Your task to perform on an android device: Open Chrome and go to the settings page Image 0: 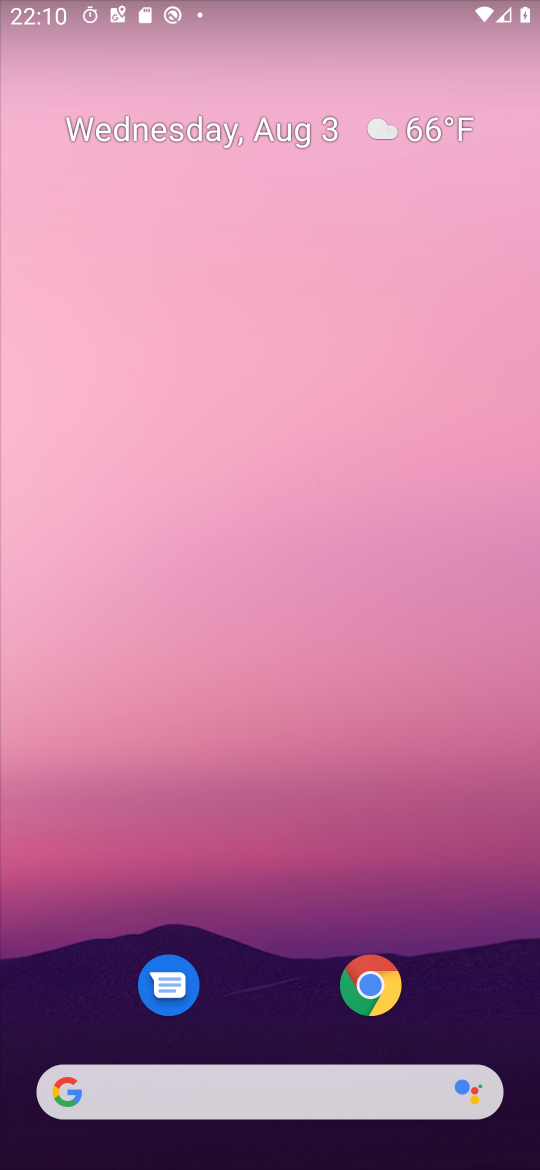
Step 0: click (362, 969)
Your task to perform on an android device: Open Chrome and go to the settings page Image 1: 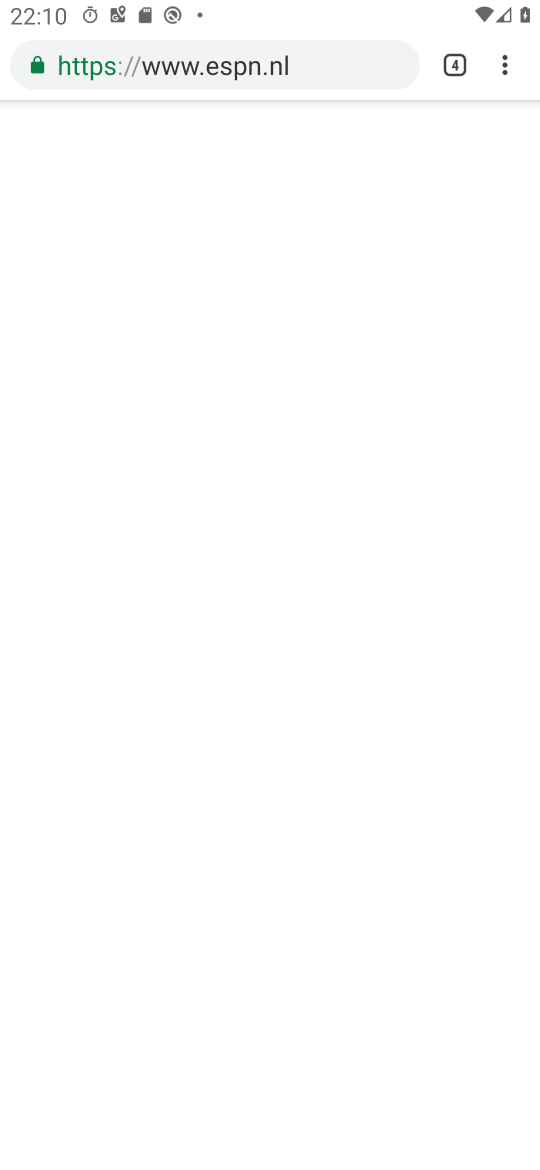
Step 1: click (498, 70)
Your task to perform on an android device: Open Chrome and go to the settings page Image 2: 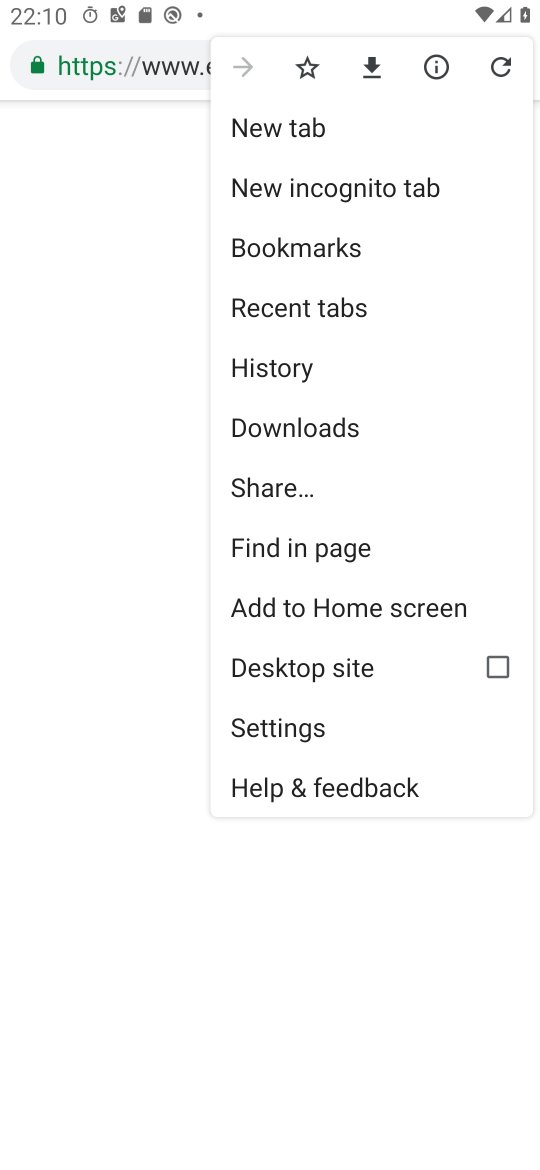
Step 2: click (313, 722)
Your task to perform on an android device: Open Chrome and go to the settings page Image 3: 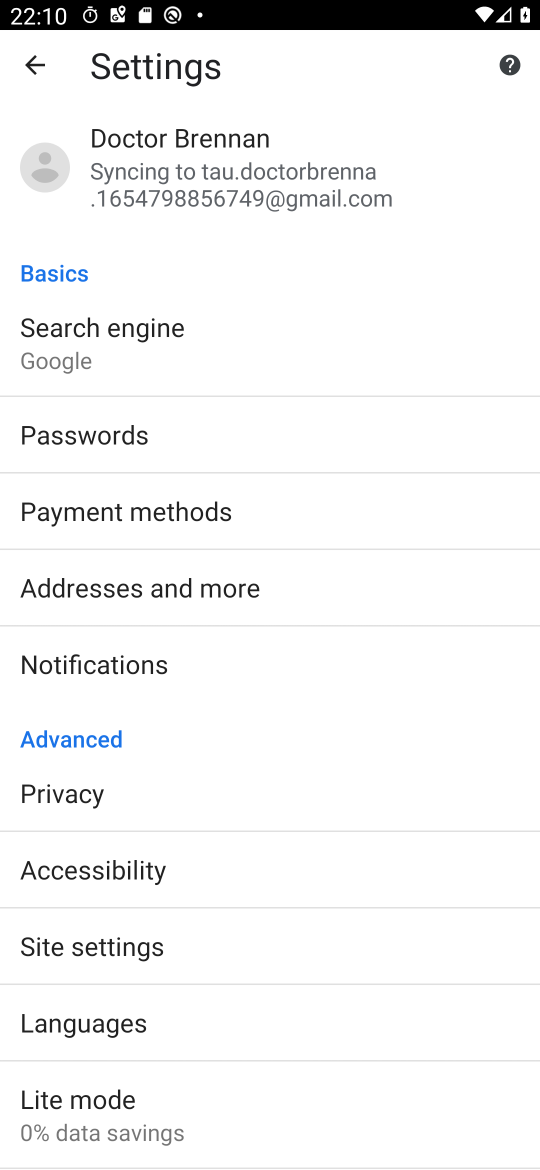
Step 3: task complete